Your task to perform on an android device: Open battery settings Image 0: 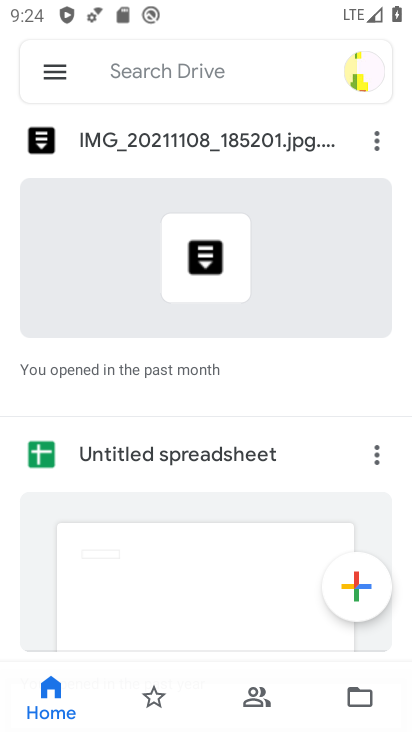
Step 0: press home button
Your task to perform on an android device: Open battery settings Image 1: 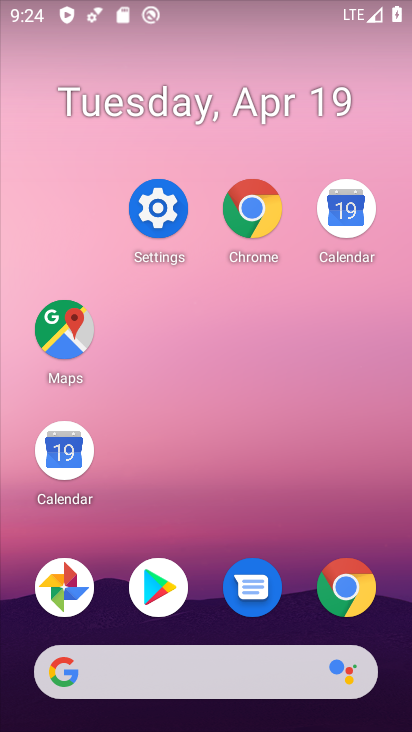
Step 1: drag from (244, 541) to (153, 117)
Your task to perform on an android device: Open battery settings Image 2: 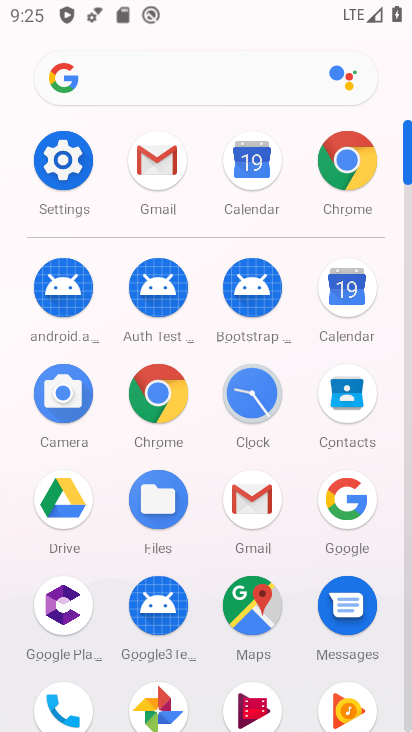
Step 2: click (58, 163)
Your task to perform on an android device: Open battery settings Image 3: 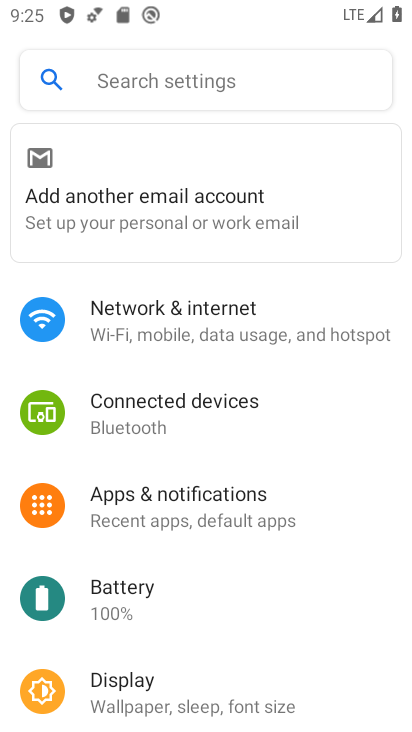
Step 3: click (120, 604)
Your task to perform on an android device: Open battery settings Image 4: 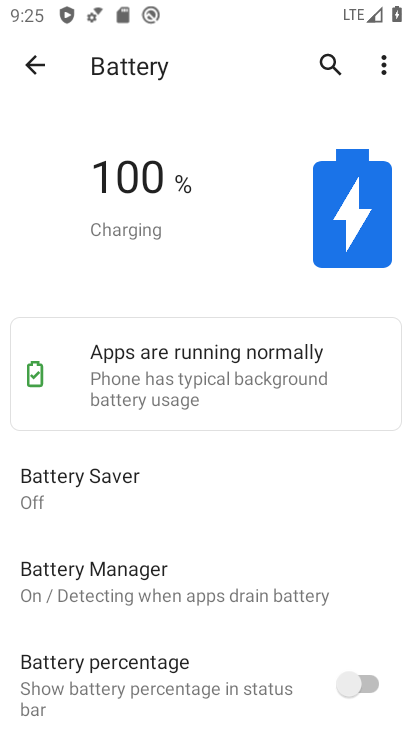
Step 4: task complete